Your task to perform on an android device: Open Youtube and go to the subscriptions tab Image 0: 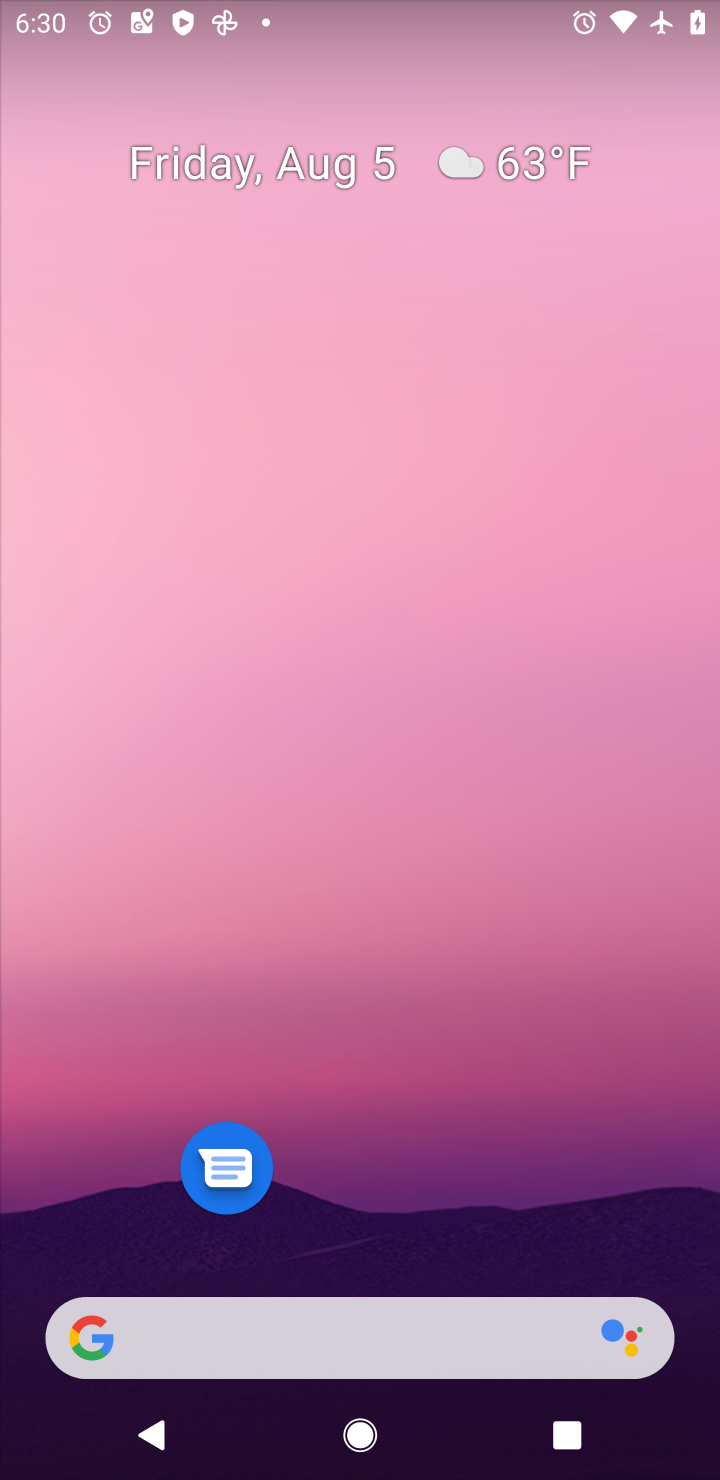
Step 0: press home button
Your task to perform on an android device: Open Youtube and go to the subscriptions tab Image 1: 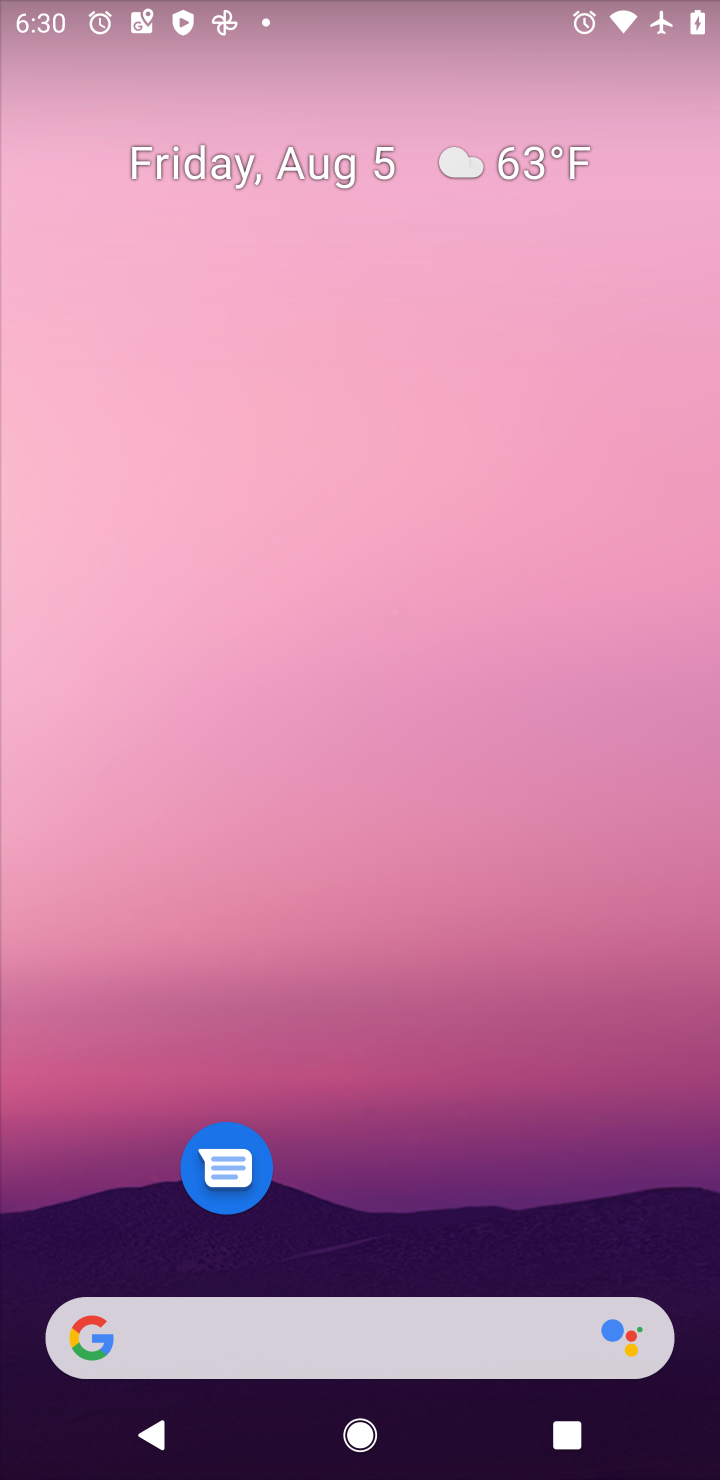
Step 1: drag from (448, 470) to (496, 136)
Your task to perform on an android device: Open Youtube and go to the subscriptions tab Image 2: 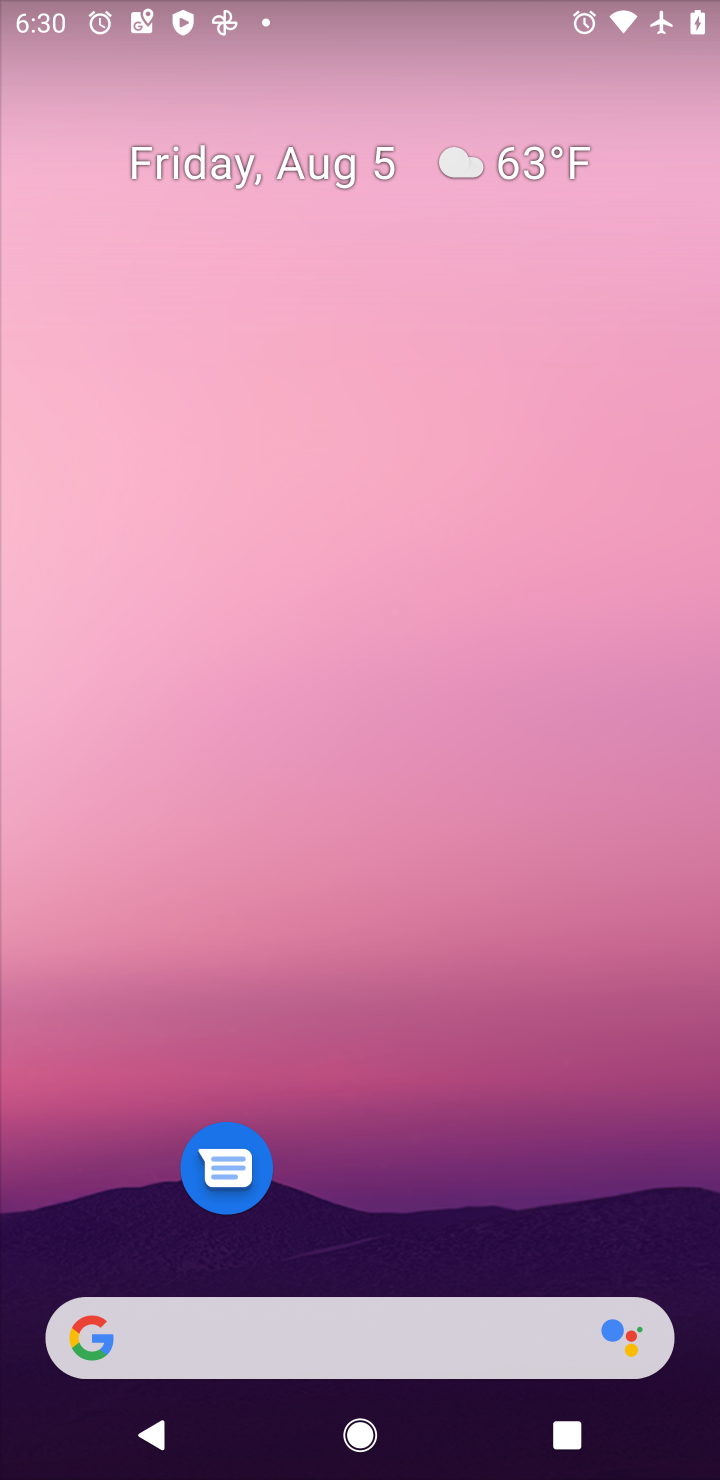
Step 2: drag from (395, 1252) to (405, 57)
Your task to perform on an android device: Open Youtube and go to the subscriptions tab Image 3: 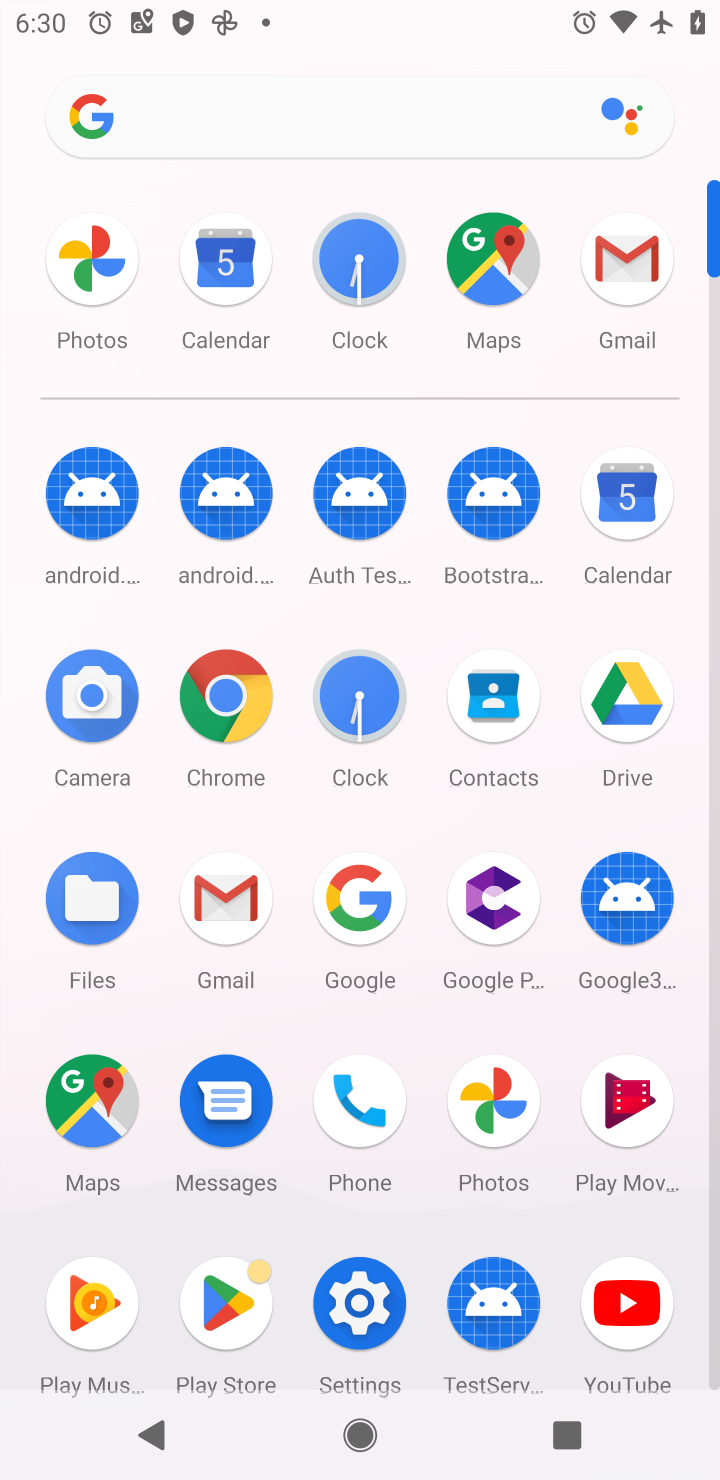
Step 3: click (611, 1329)
Your task to perform on an android device: Open Youtube and go to the subscriptions tab Image 4: 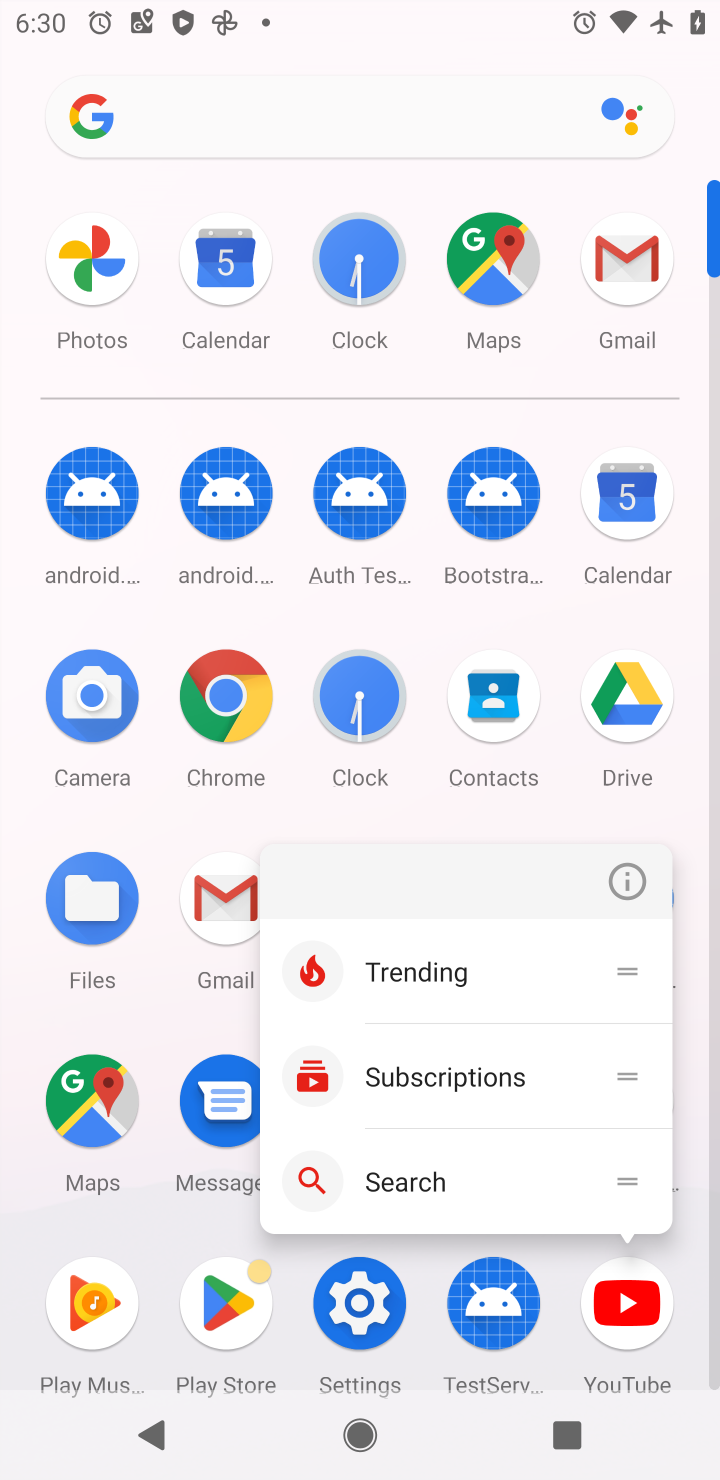
Step 4: click (610, 1319)
Your task to perform on an android device: Open Youtube and go to the subscriptions tab Image 5: 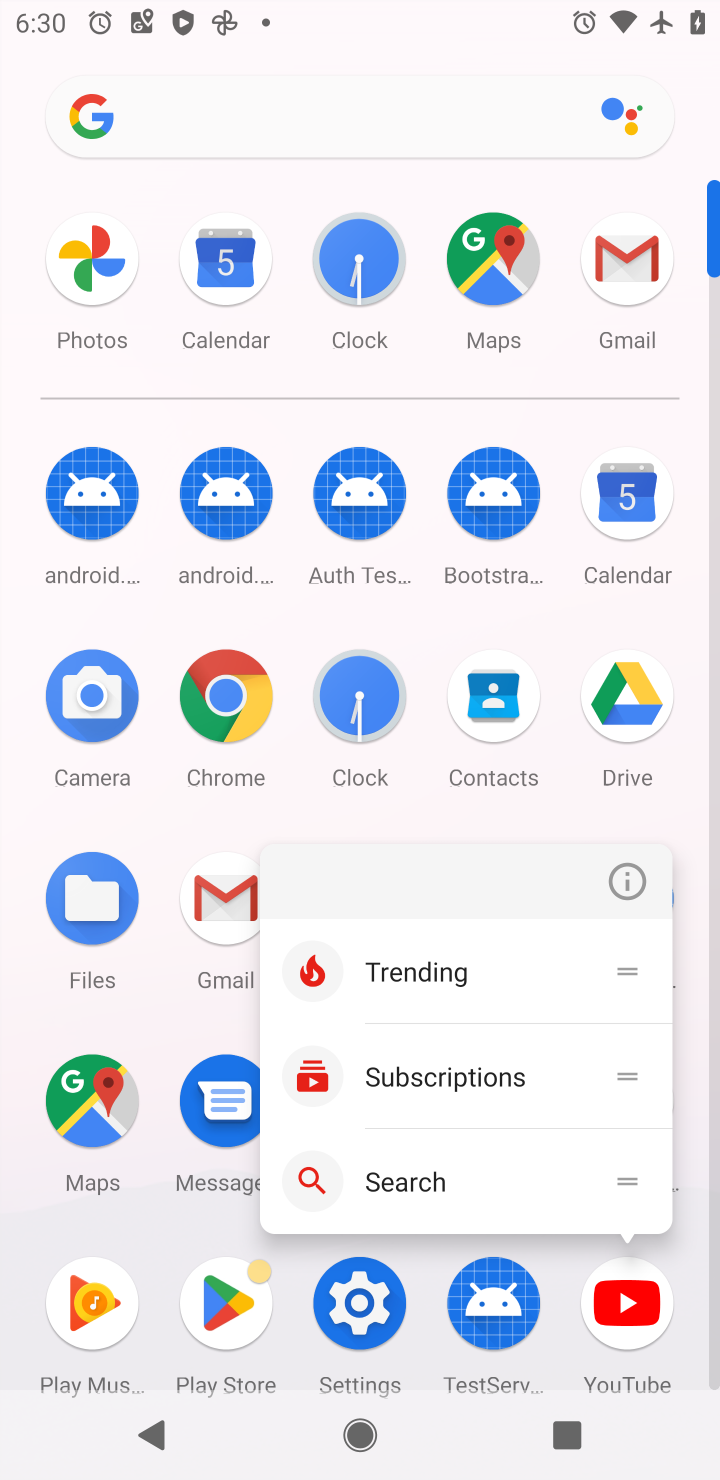
Step 5: click (611, 1319)
Your task to perform on an android device: Open Youtube and go to the subscriptions tab Image 6: 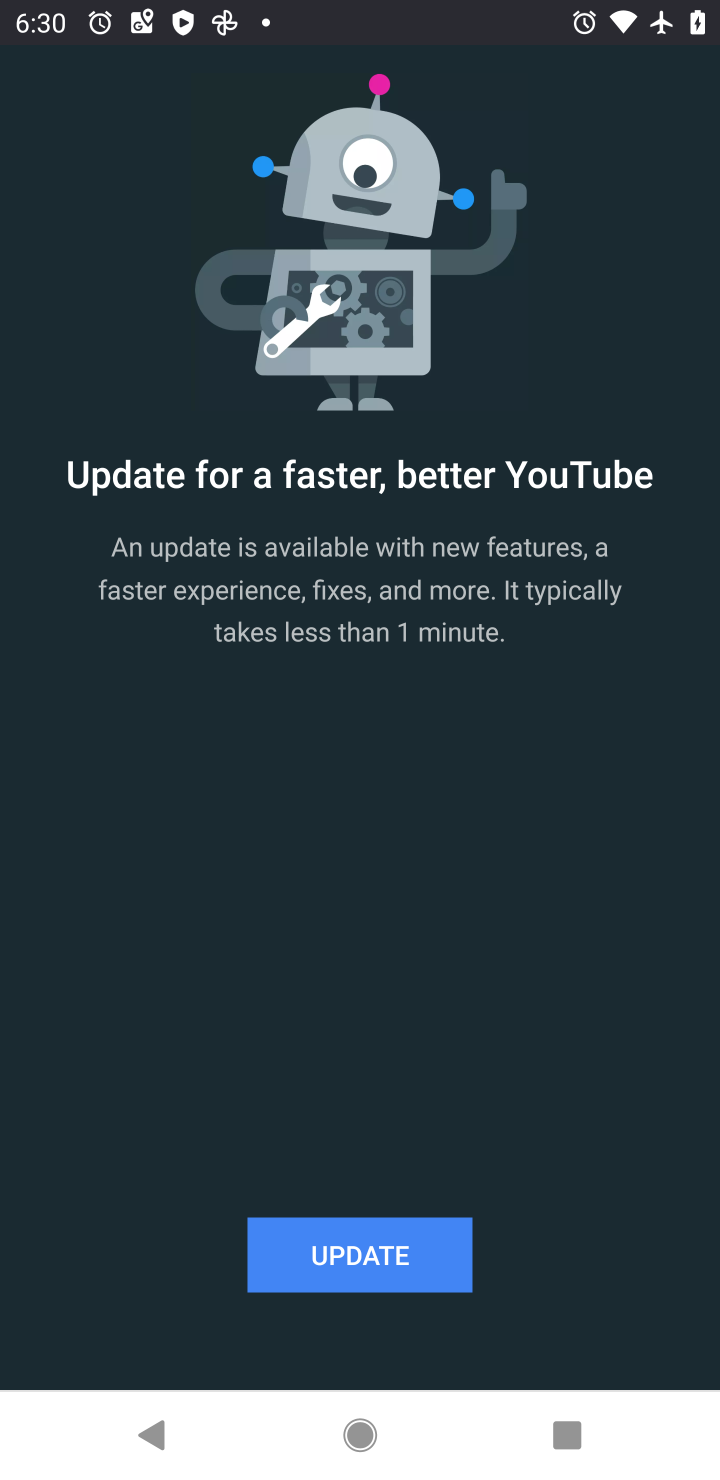
Step 6: click (292, 1260)
Your task to perform on an android device: Open Youtube and go to the subscriptions tab Image 7: 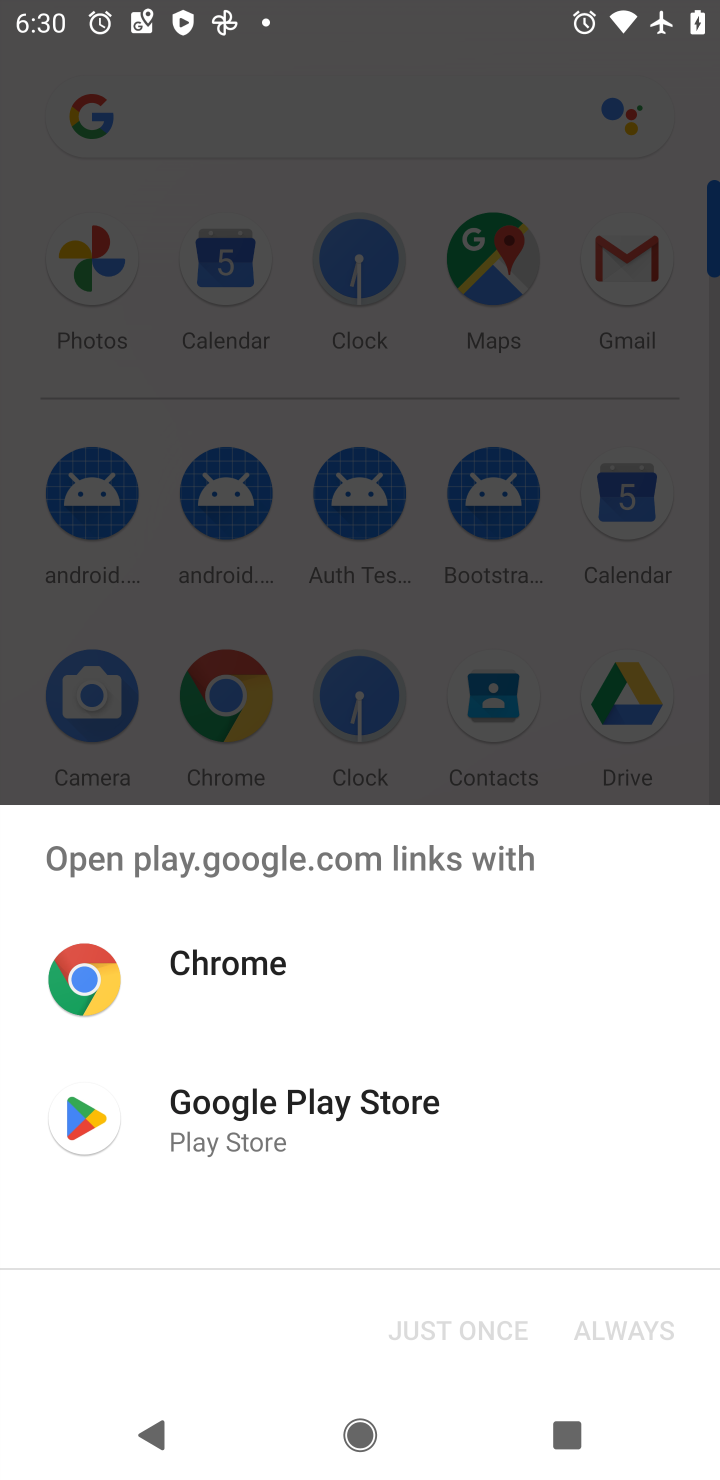
Step 7: click (252, 1123)
Your task to perform on an android device: Open Youtube and go to the subscriptions tab Image 8: 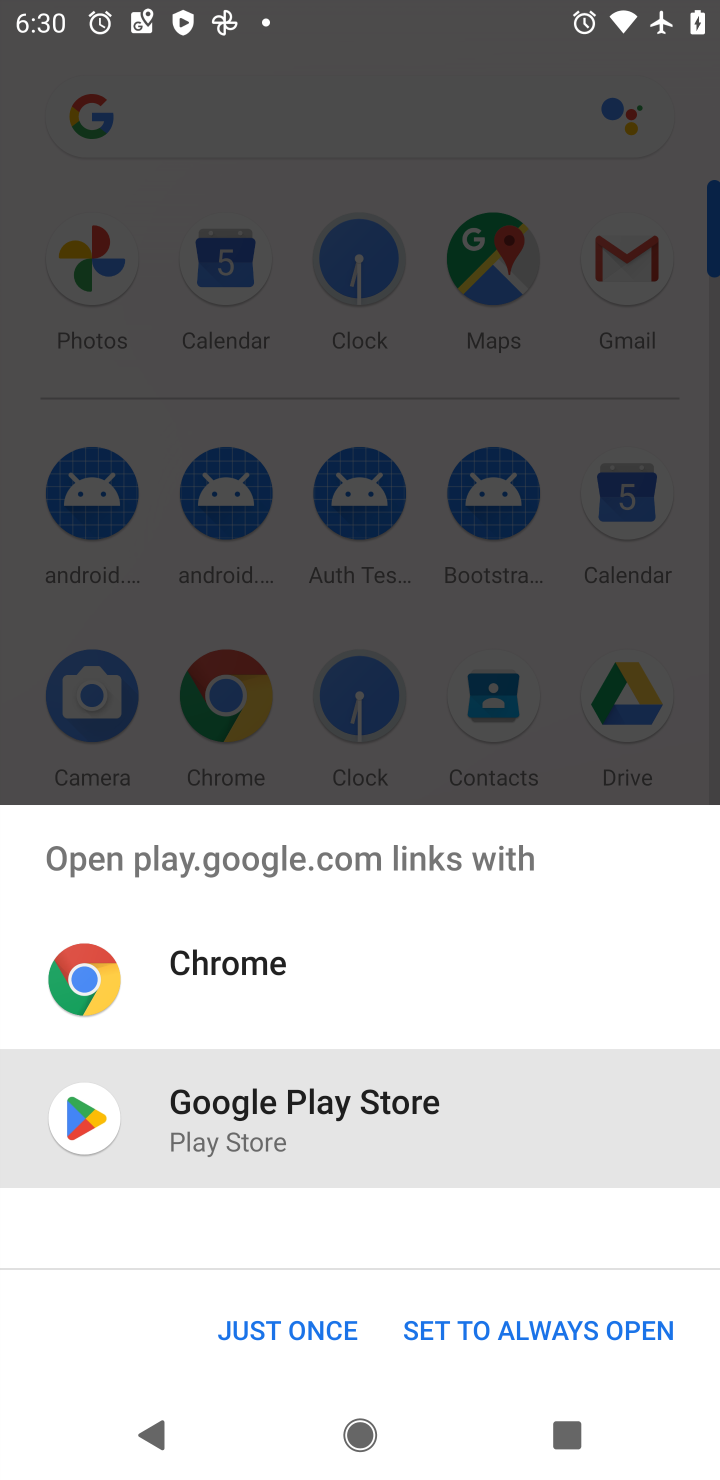
Step 8: click (295, 1324)
Your task to perform on an android device: Open Youtube and go to the subscriptions tab Image 9: 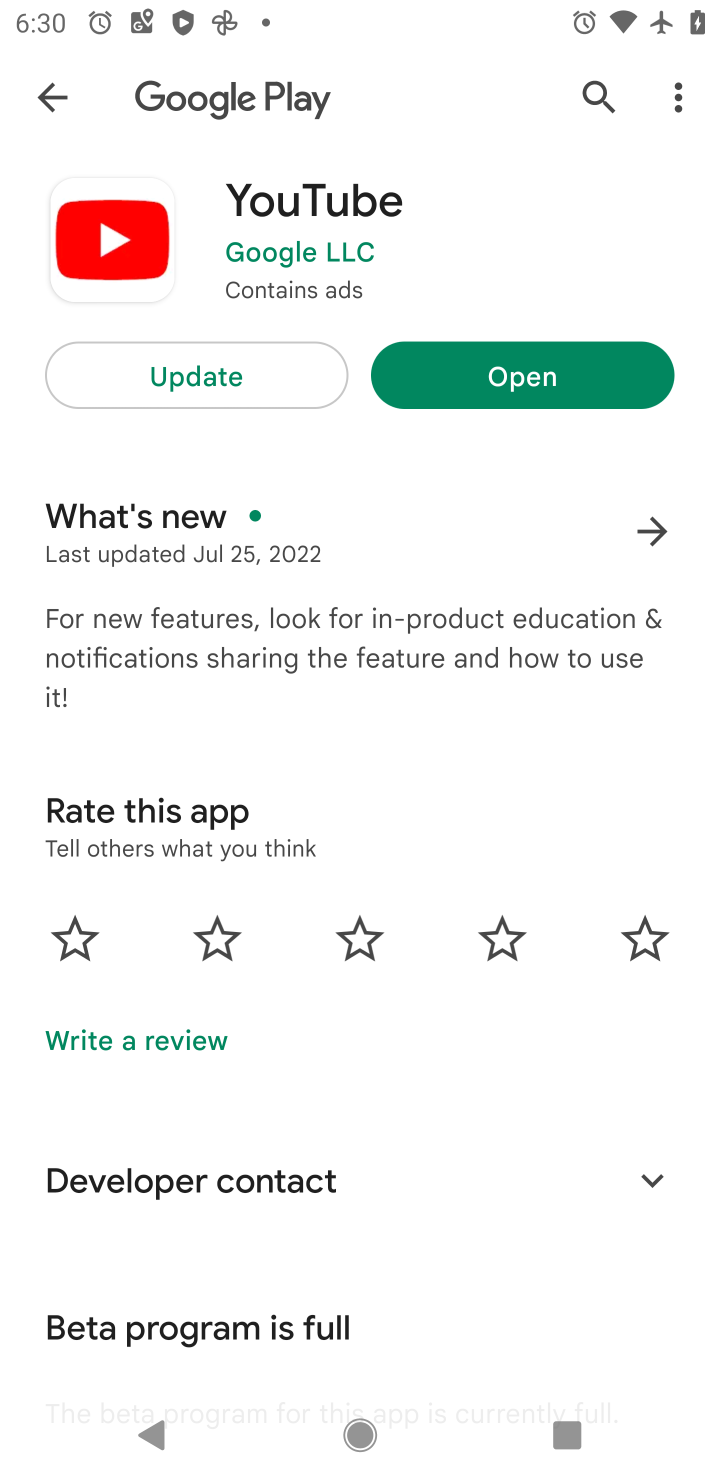
Step 9: click (168, 370)
Your task to perform on an android device: Open Youtube and go to the subscriptions tab Image 10: 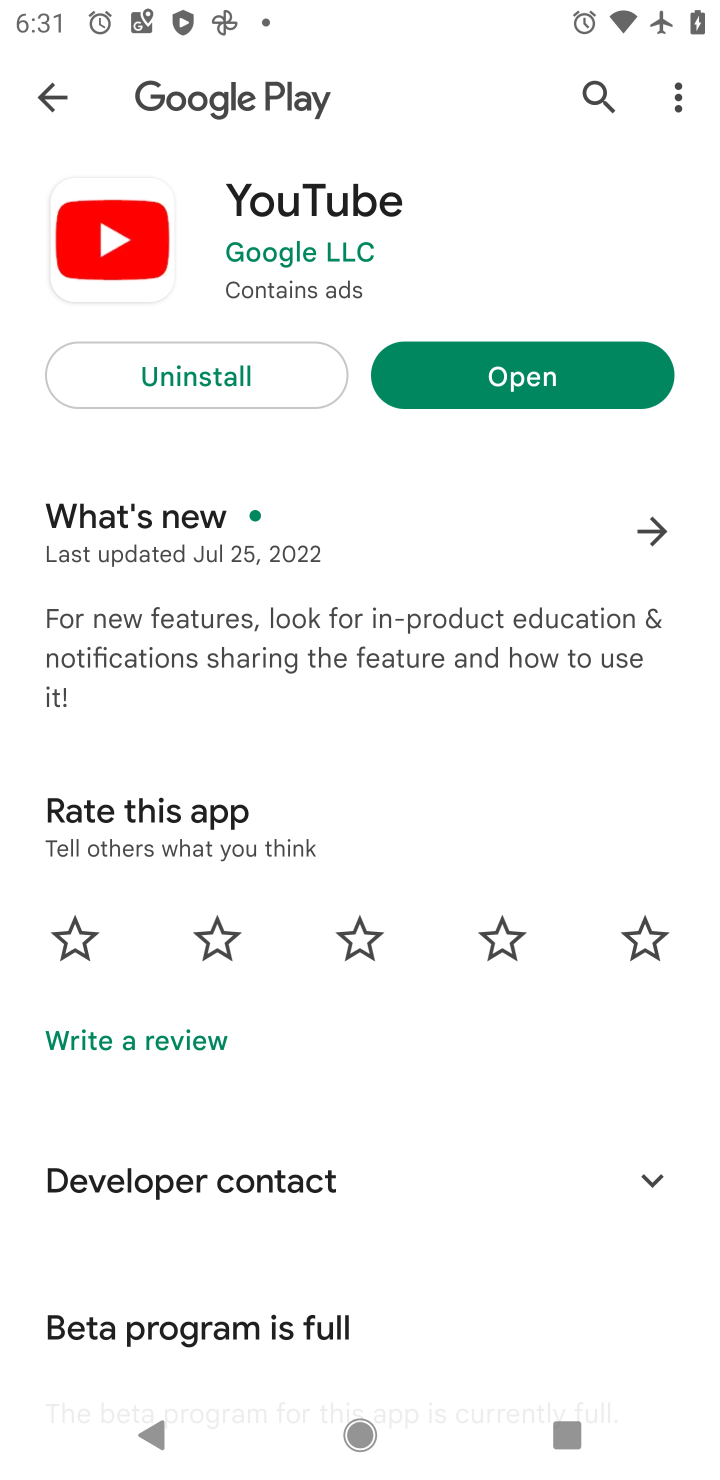
Step 10: click (441, 382)
Your task to perform on an android device: Open Youtube and go to the subscriptions tab Image 11: 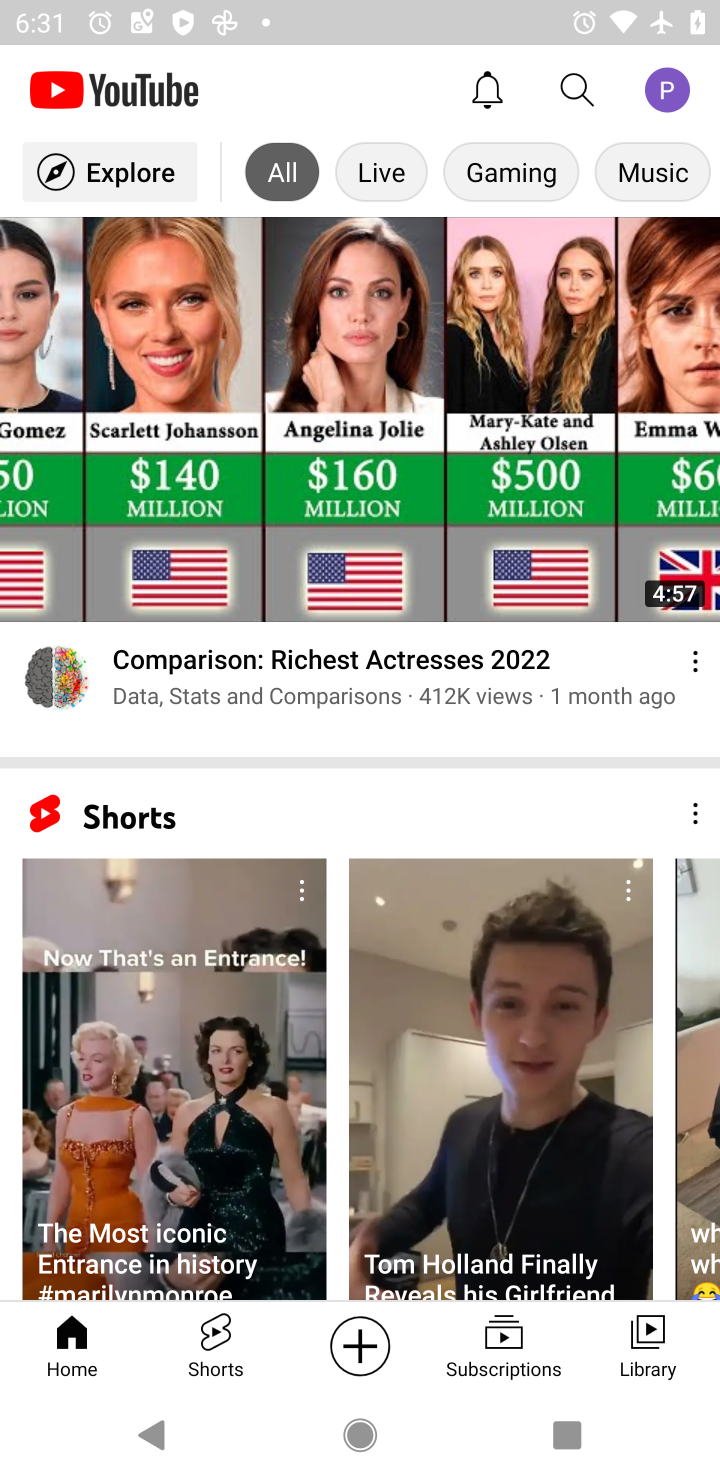
Step 11: click (501, 1345)
Your task to perform on an android device: Open Youtube and go to the subscriptions tab Image 12: 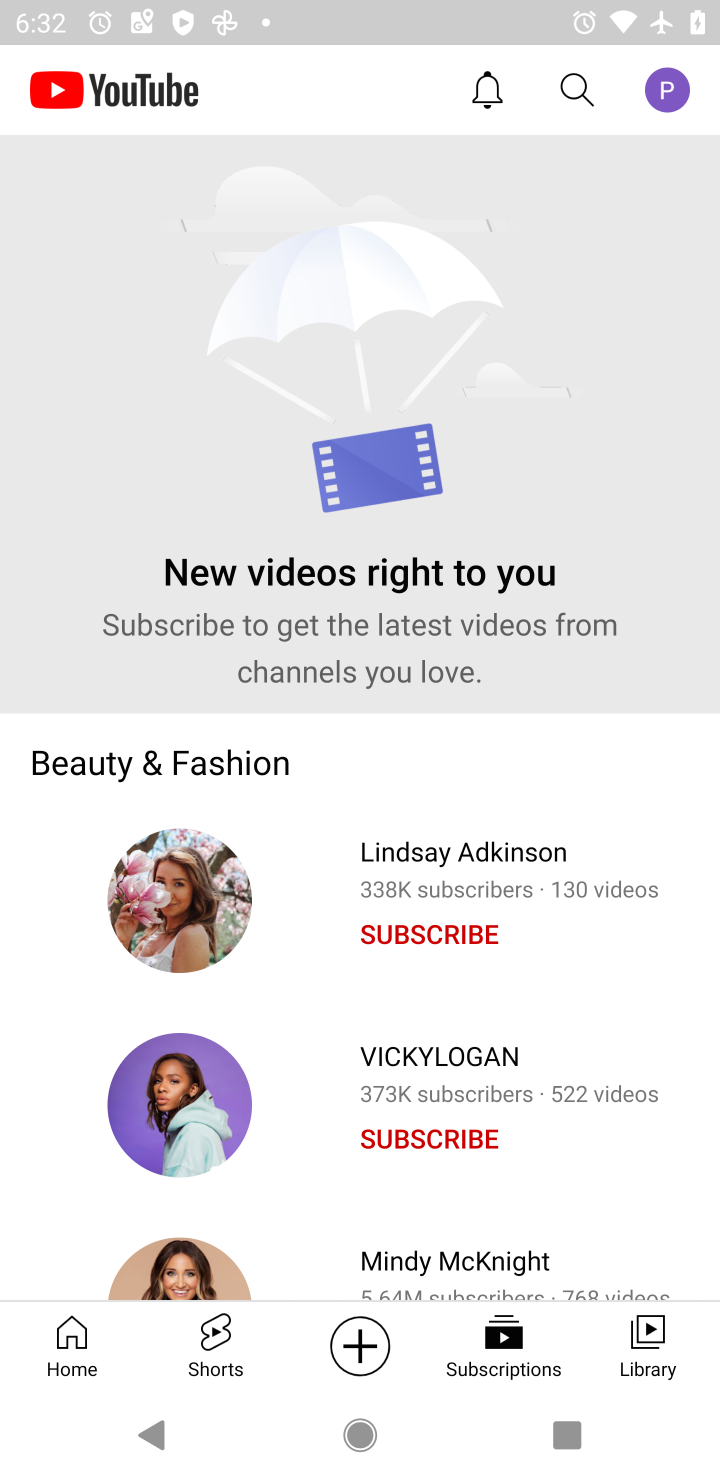
Step 12: task complete